Your task to perform on an android device: turn on translation in the chrome app Image 0: 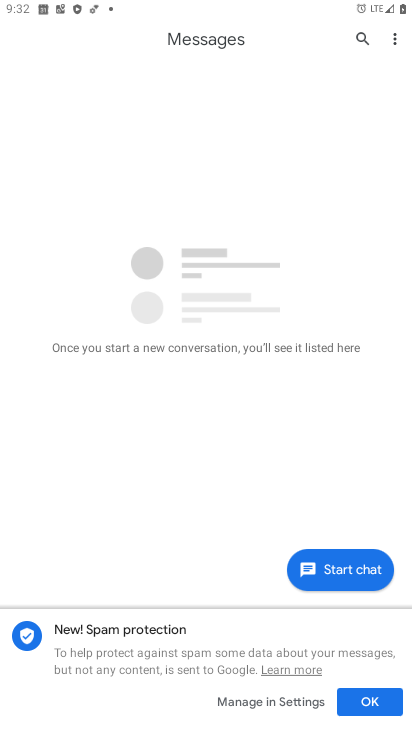
Step 0: press home button
Your task to perform on an android device: turn on translation in the chrome app Image 1: 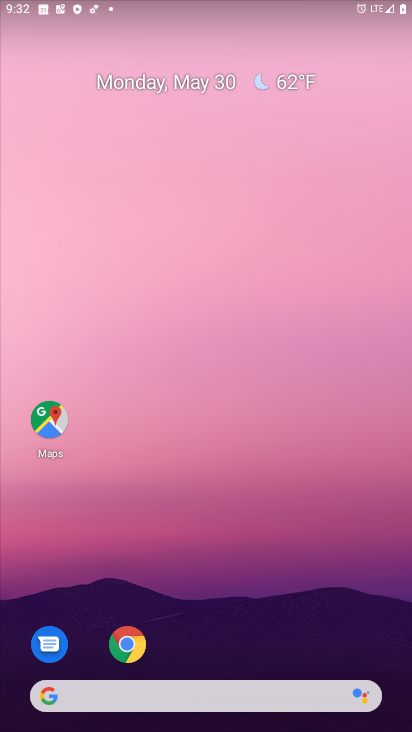
Step 1: click (128, 641)
Your task to perform on an android device: turn on translation in the chrome app Image 2: 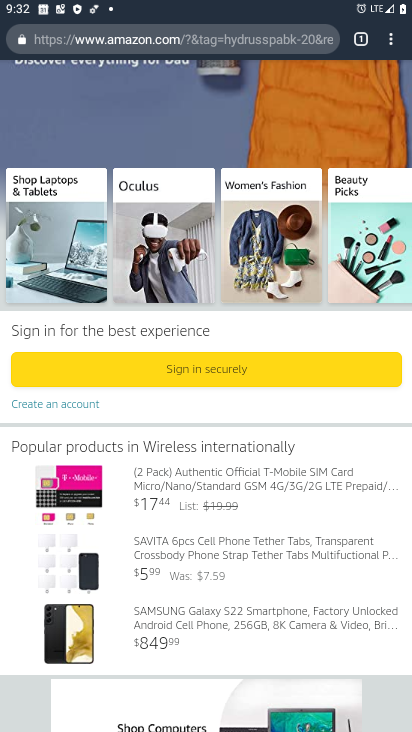
Step 2: click (391, 42)
Your task to perform on an android device: turn on translation in the chrome app Image 3: 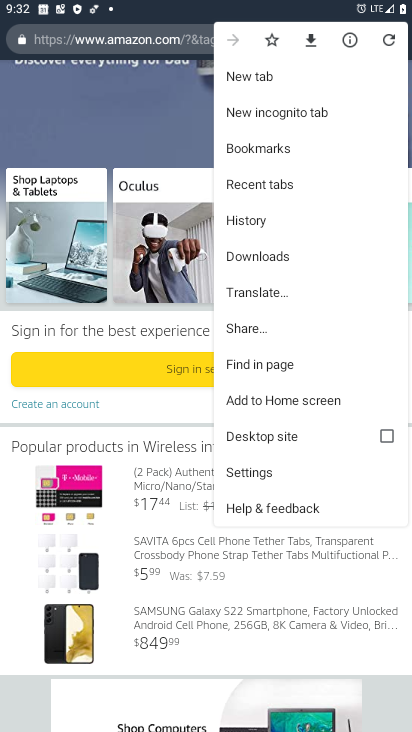
Step 3: click (265, 468)
Your task to perform on an android device: turn on translation in the chrome app Image 4: 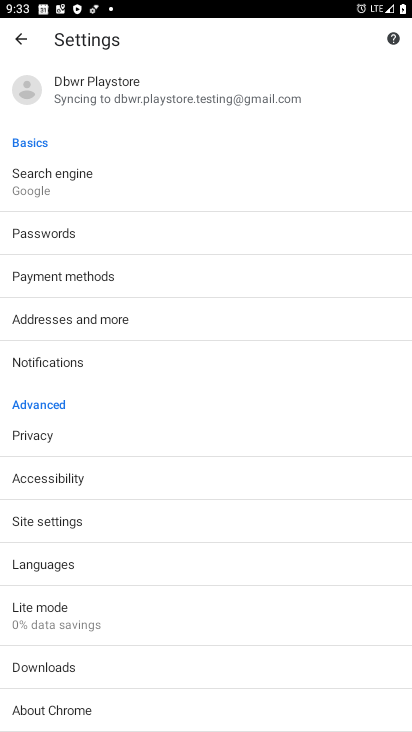
Step 4: click (40, 565)
Your task to perform on an android device: turn on translation in the chrome app Image 5: 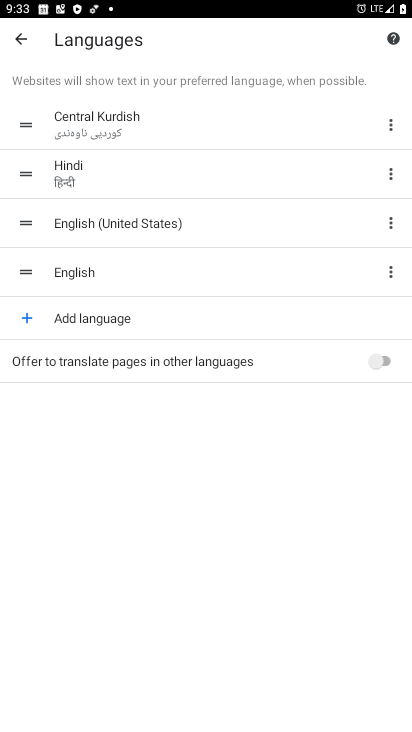
Step 5: click (387, 362)
Your task to perform on an android device: turn on translation in the chrome app Image 6: 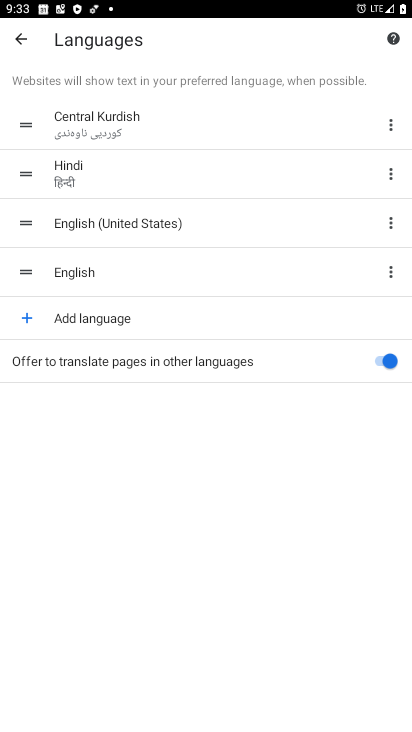
Step 6: task complete